Your task to perform on an android device: change notifications settings Image 0: 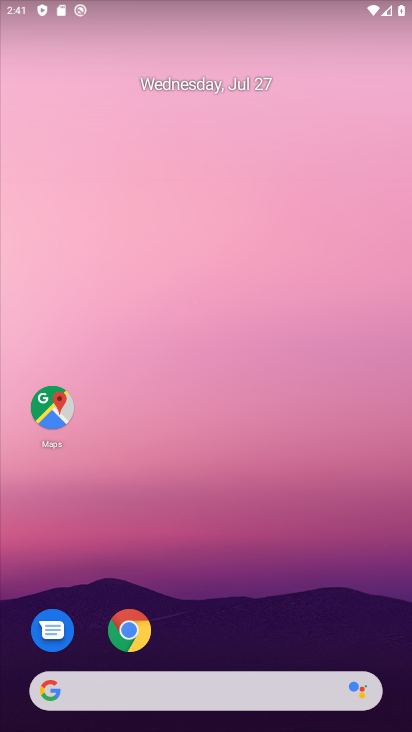
Step 0: press home button
Your task to perform on an android device: change notifications settings Image 1: 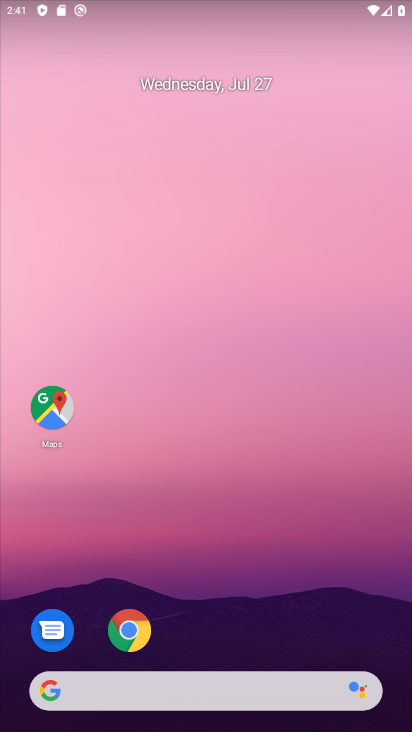
Step 1: drag from (199, 636) to (224, 105)
Your task to perform on an android device: change notifications settings Image 2: 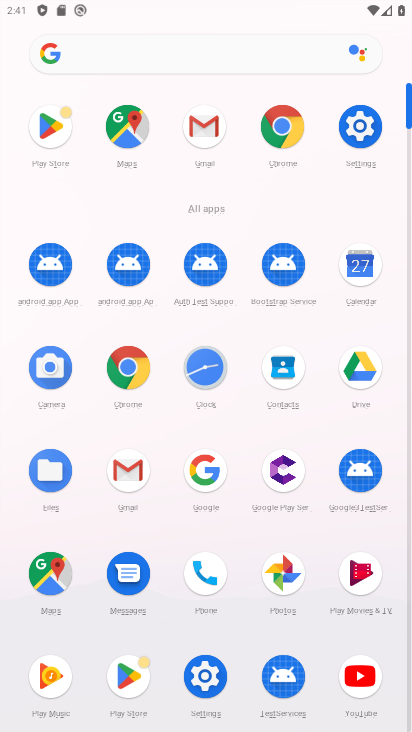
Step 2: click (363, 131)
Your task to perform on an android device: change notifications settings Image 3: 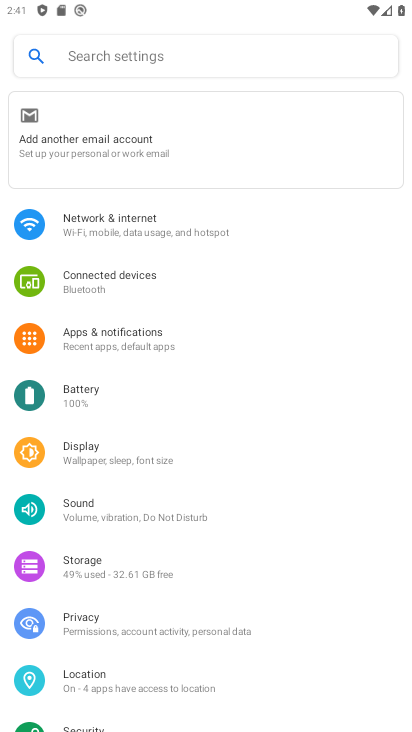
Step 3: click (100, 340)
Your task to perform on an android device: change notifications settings Image 4: 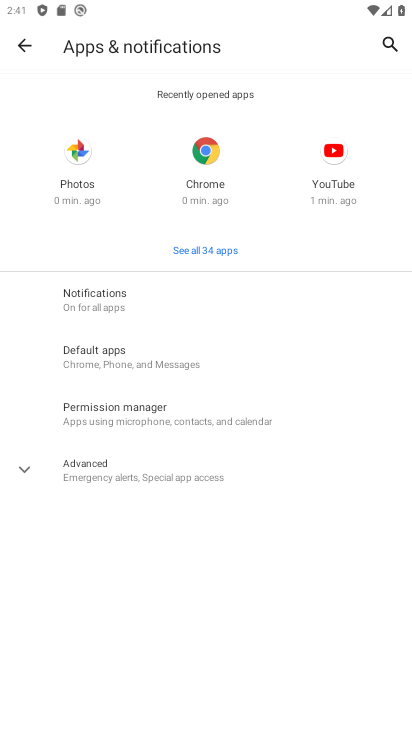
Step 4: click (88, 312)
Your task to perform on an android device: change notifications settings Image 5: 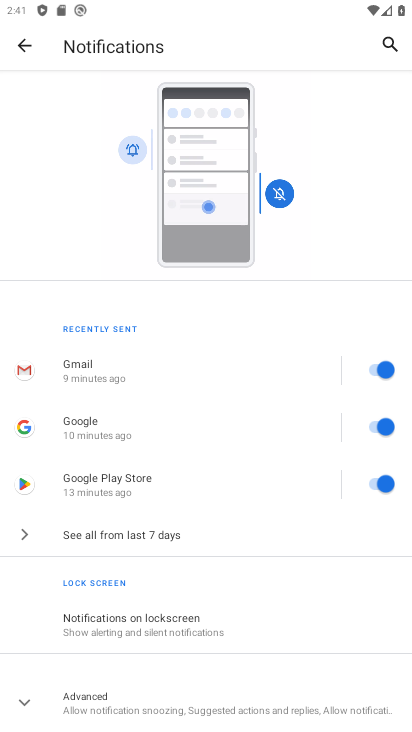
Step 5: click (384, 362)
Your task to perform on an android device: change notifications settings Image 6: 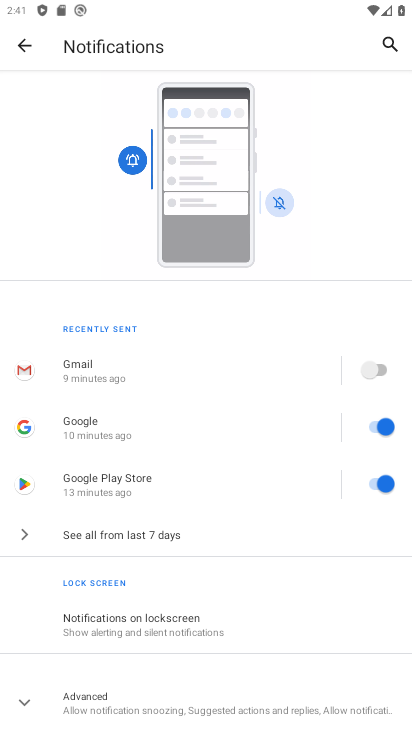
Step 6: task complete